Your task to perform on an android device: move an email to a new category in the gmail app Image 0: 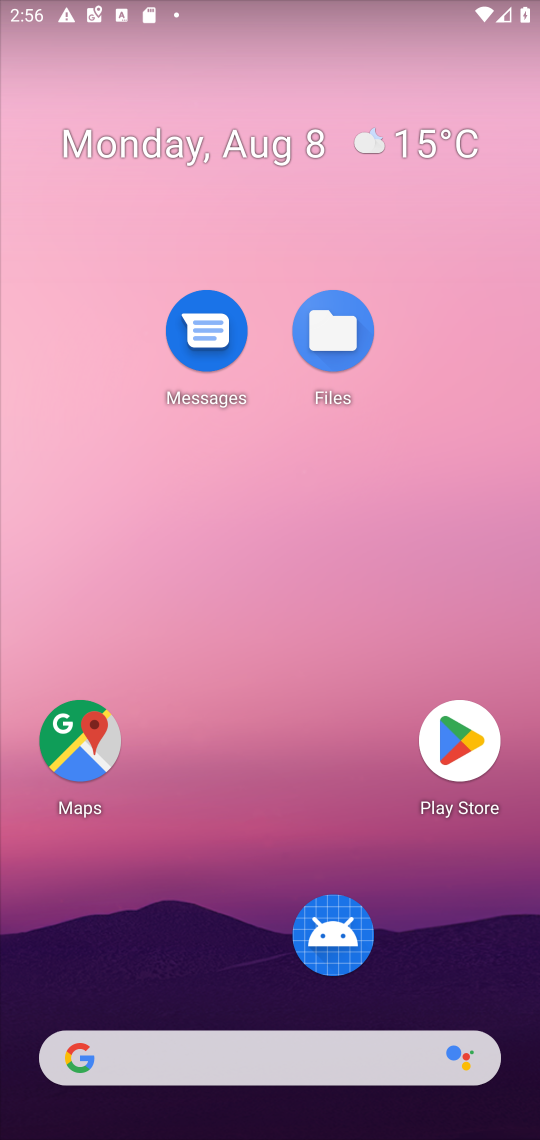
Step 0: drag from (324, 1073) to (315, 16)
Your task to perform on an android device: move an email to a new category in the gmail app Image 1: 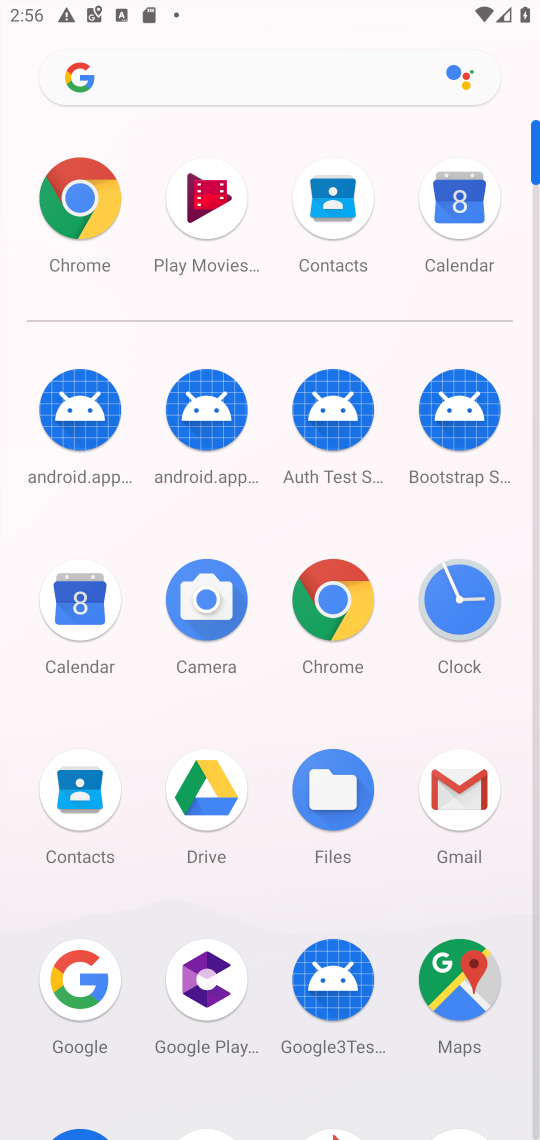
Step 1: click (464, 773)
Your task to perform on an android device: move an email to a new category in the gmail app Image 2: 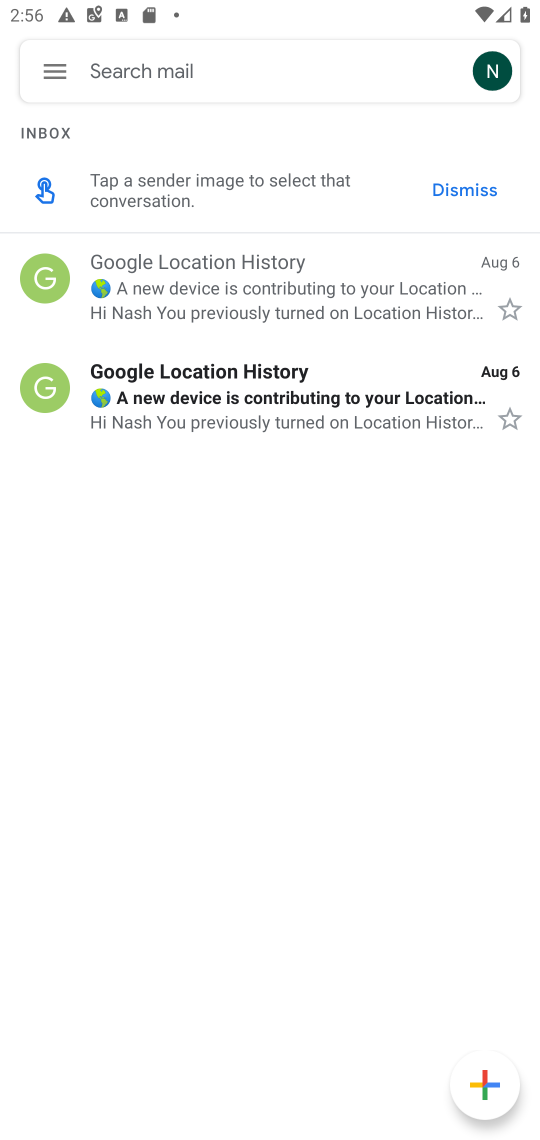
Step 2: click (56, 77)
Your task to perform on an android device: move an email to a new category in the gmail app Image 3: 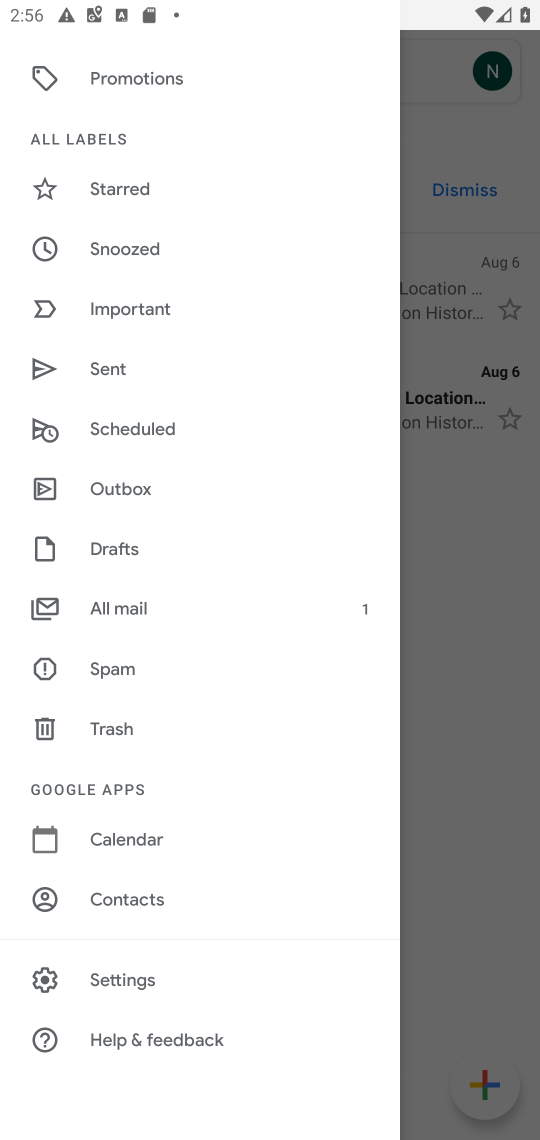
Step 3: click (489, 440)
Your task to perform on an android device: move an email to a new category in the gmail app Image 4: 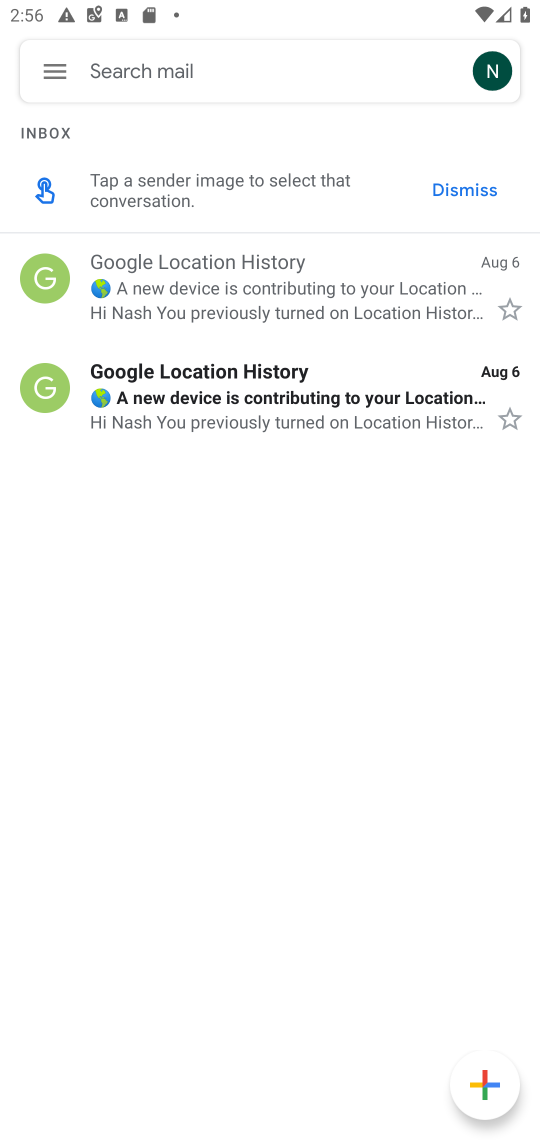
Step 4: click (396, 291)
Your task to perform on an android device: move an email to a new category in the gmail app Image 5: 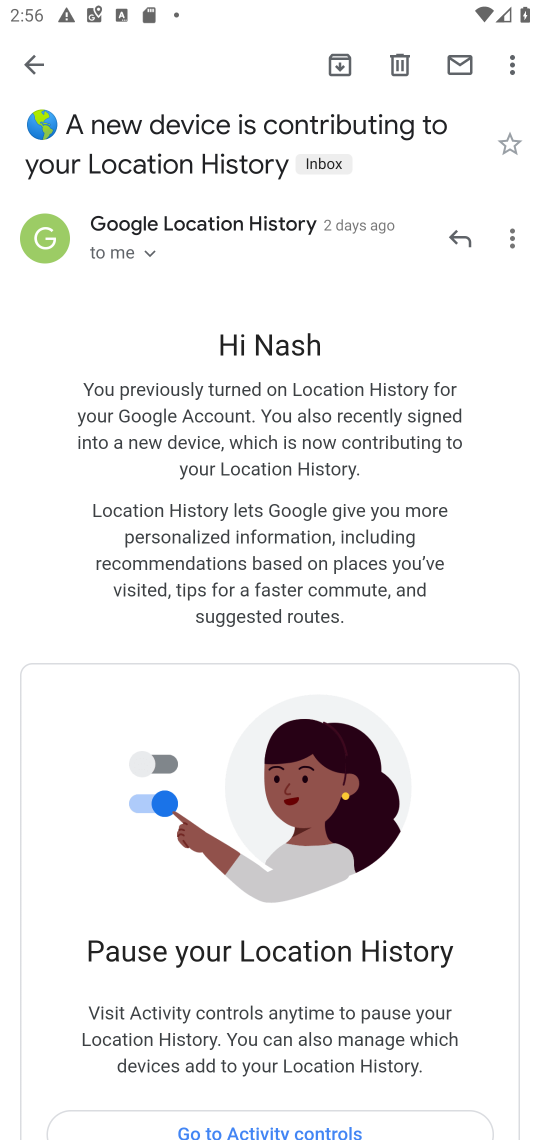
Step 5: click (503, 64)
Your task to perform on an android device: move an email to a new category in the gmail app Image 6: 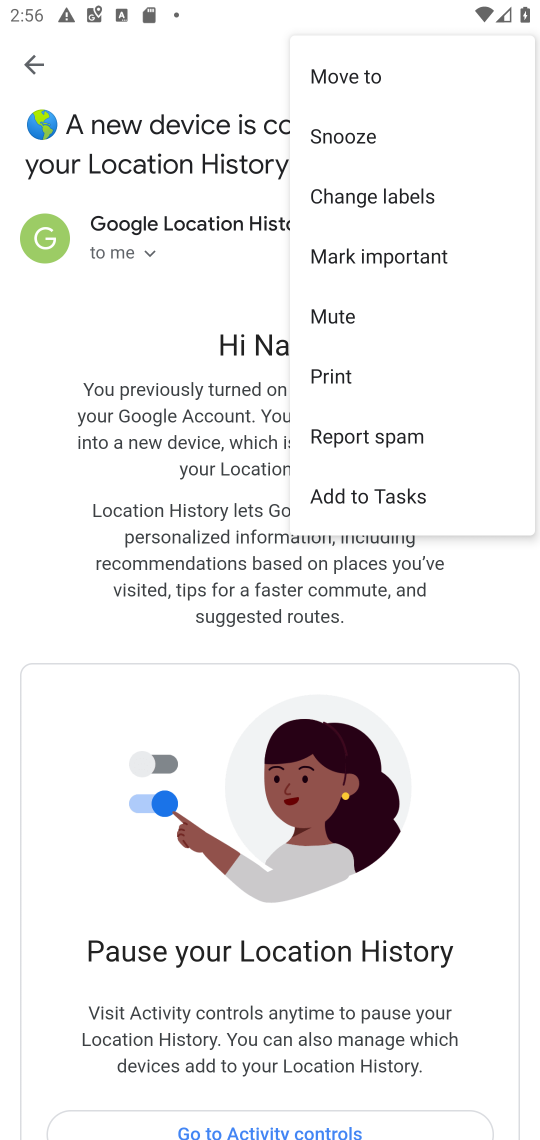
Step 6: click (320, 206)
Your task to perform on an android device: move an email to a new category in the gmail app Image 7: 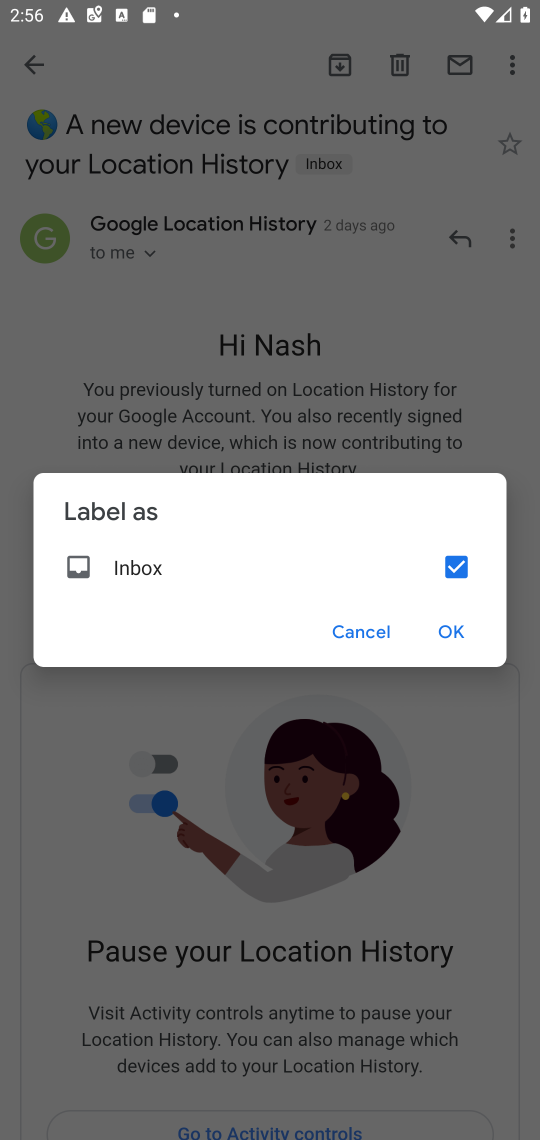
Step 7: click (454, 630)
Your task to perform on an android device: move an email to a new category in the gmail app Image 8: 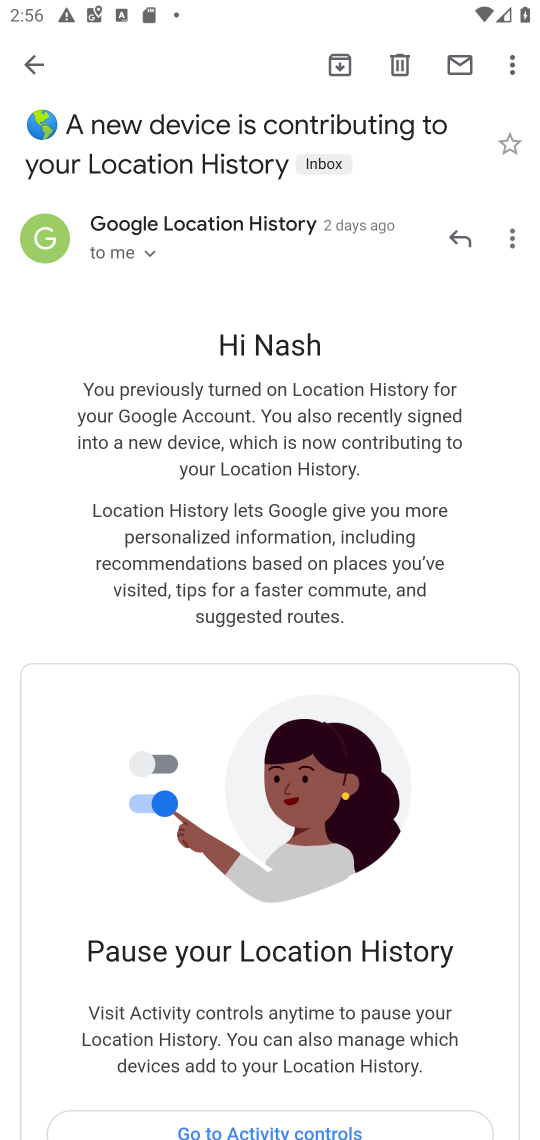
Step 8: task complete